Your task to perform on an android device: find snoozed emails in the gmail app Image 0: 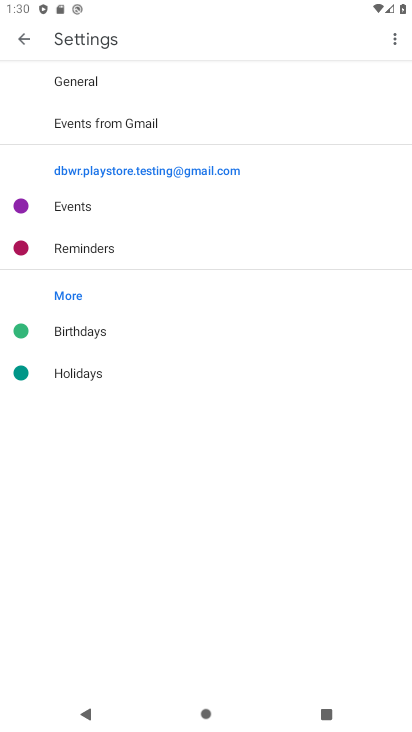
Step 0: press home button
Your task to perform on an android device: find snoozed emails in the gmail app Image 1: 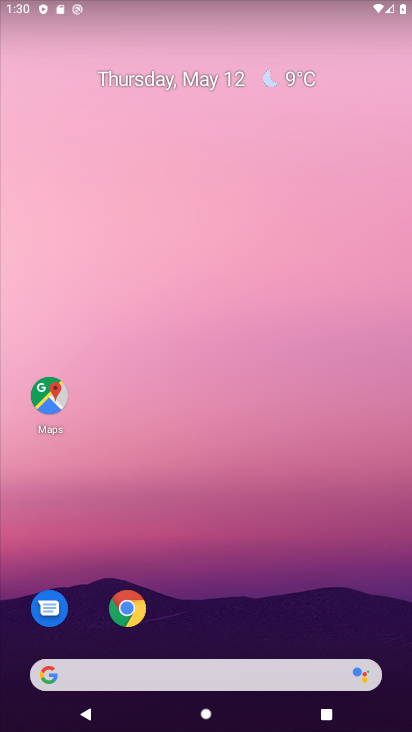
Step 1: drag from (215, 611) to (220, 366)
Your task to perform on an android device: find snoozed emails in the gmail app Image 2: 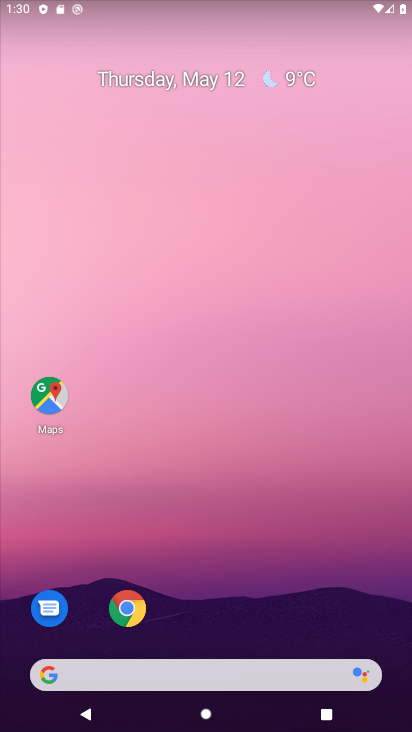
Step 2: drag from (188, 619) to (145, 136)
Your task to perform on an android device: find snoozed emails in the gmail app Image 3: 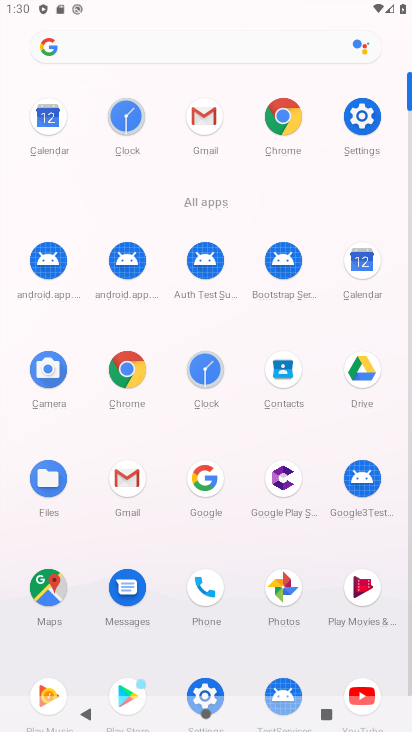
Step 3: click (208, 123)
Your task to perform on an android device: find snoozed emails in the gmail app Image 4: 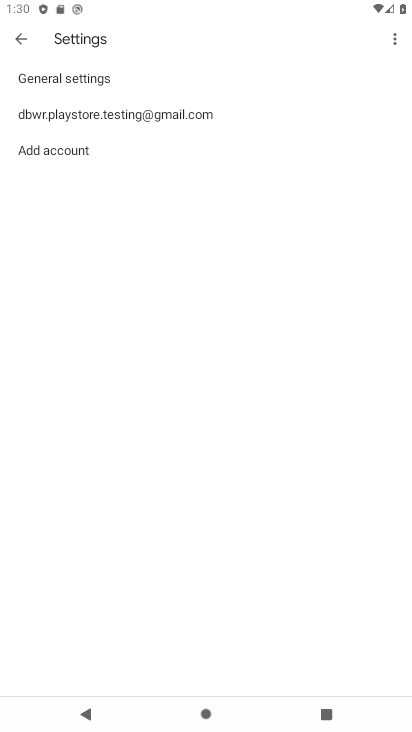
Step 4: press back button
Your task to perform on an android device: find snoozed emails in the gmail app Image 5: 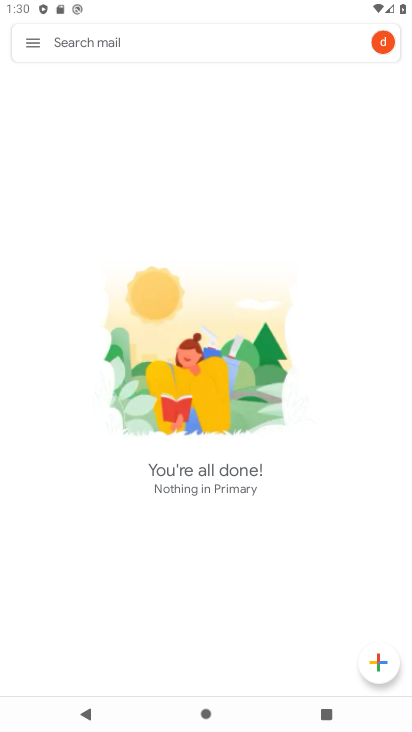
Step 5: click (29, 45)
Your task to perform on an android device: find snoozed emails in the gmail app Image 6: 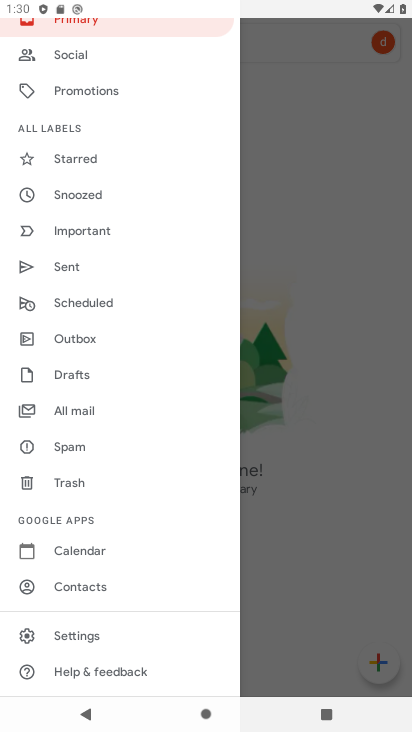
Step 6: click (76, 192)
Your task to perform on an android device: find snoozed emails in the gmail app Image 7: 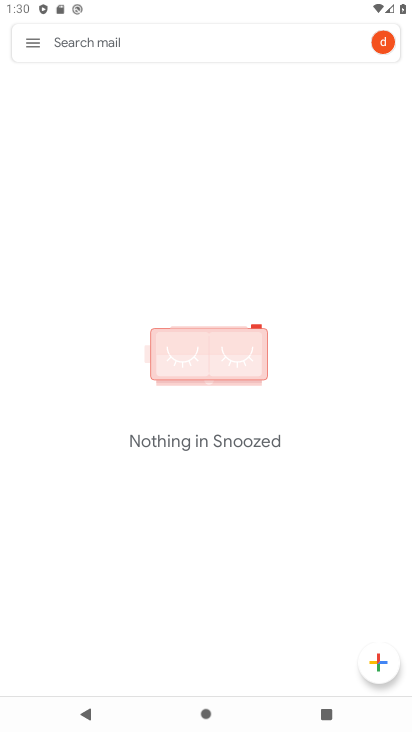
Step 7: task complete